Your task to perform on an android device: Open Google Chrome and open the bookmarks view Image 0: 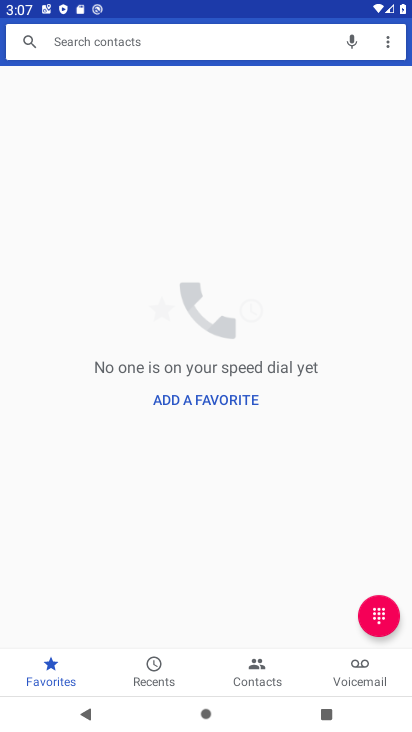
Step 0: press home button
Your task to perform on an android device: Open Google Chrome and open the bookmarks view Image 1: 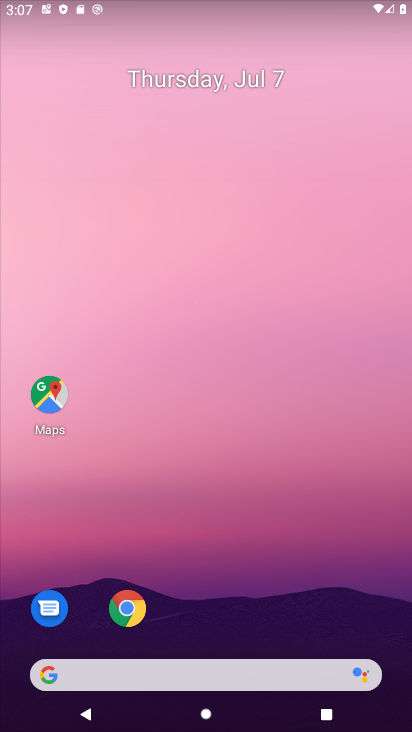
Step 1: click (125, 608)
Your task to perform on an android device: Open Google Chrome and open the bookmarks view Image 2: 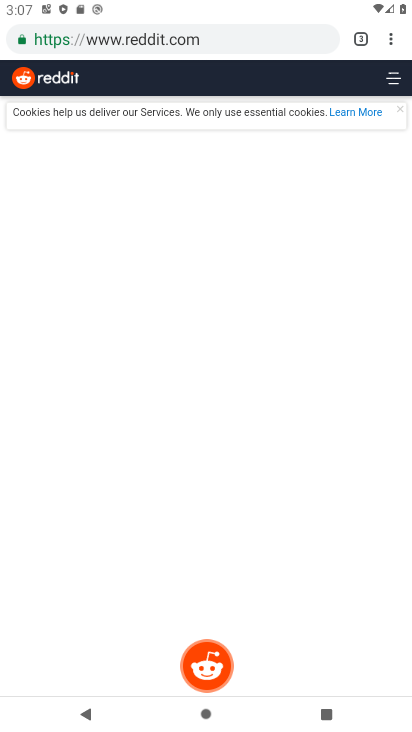
Step 2: click (391, 43)
Your task to perform on an android device: Open Google Chrome and open the bookmarks view Image 3: 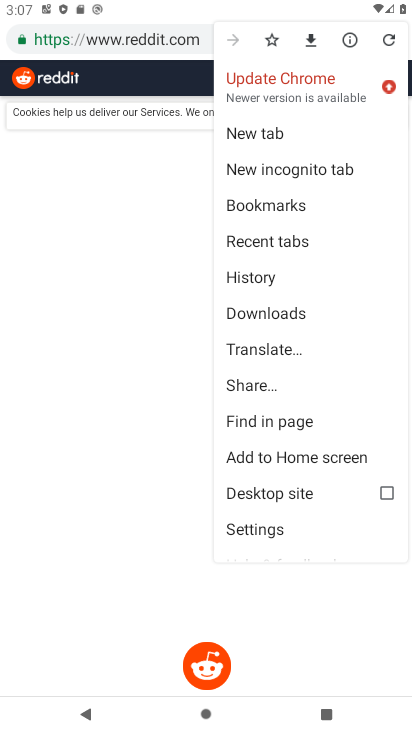
Step 3: click (264, 200)
Your task to perform on an android device: Open Google Chrome and open the bookmarks view Image 4: 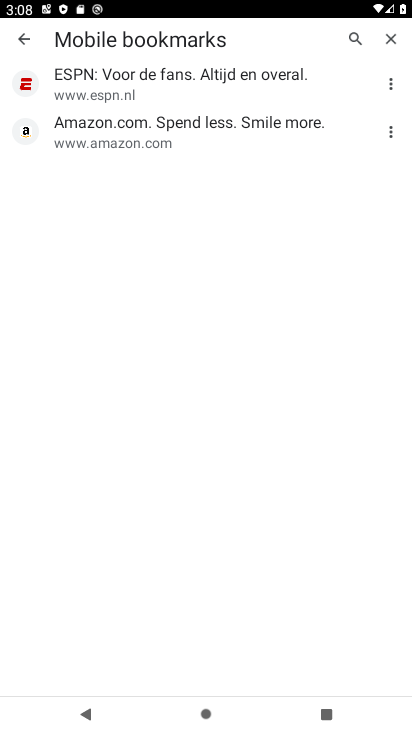
Step 4: task complete